Your task to perform on an android device: turn on priority inbox in the gmail app Image 0: 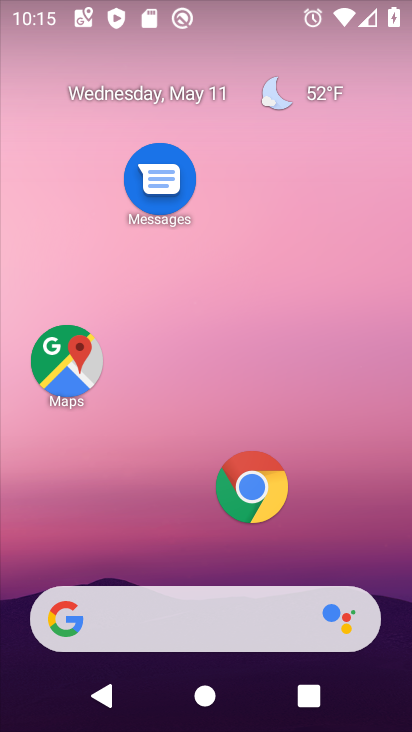
Step 0: drag from (173, 555) to (179, 232)
Your task to perform on an android device: turn on priority inbox in the gmail app Image 1: 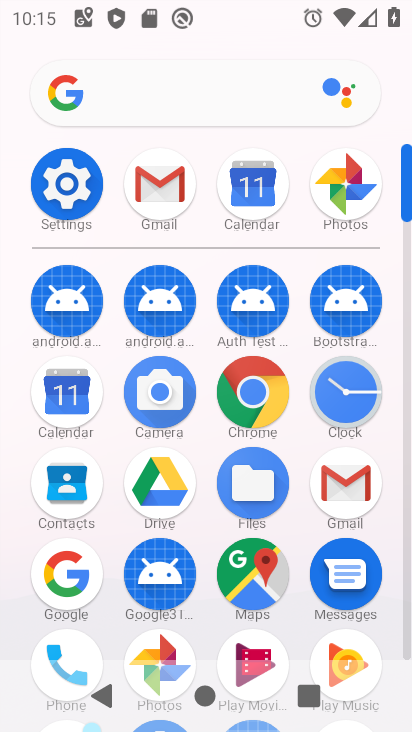
Step 1: click (155, 189)
Your task to perform on an android device: turn on priority inbox in the gmail app Image 2: 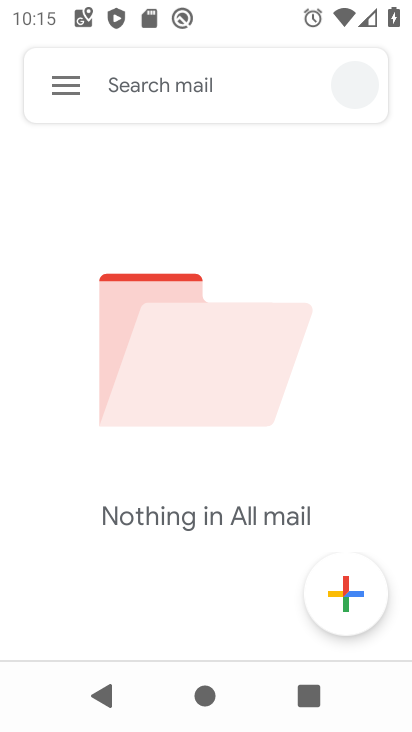
Step 2: click (77, 102)
Your task to perform on an android device: turn on priority inbox in the gmail app Image 3: 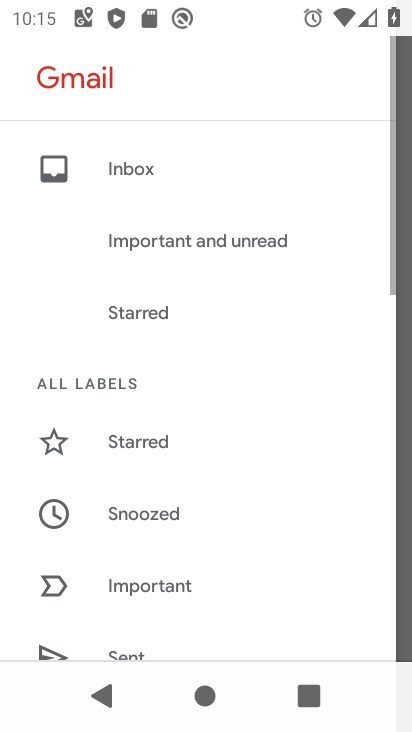
Step 3: drag from (176, 600) to (194, 244)
Your task to perform on an android device: turn on priority inbox in the gmail app Image 4: 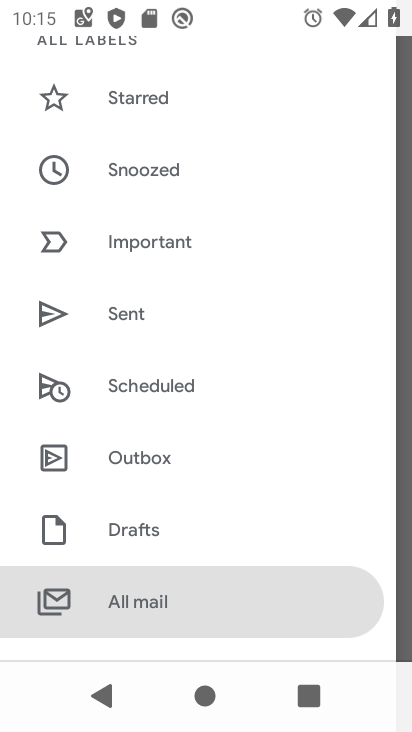
Step 4: drag from (152, 603) to (171, 292)
Your task to perform on an android device: turn on priority inbox in the gmail app Image 5: 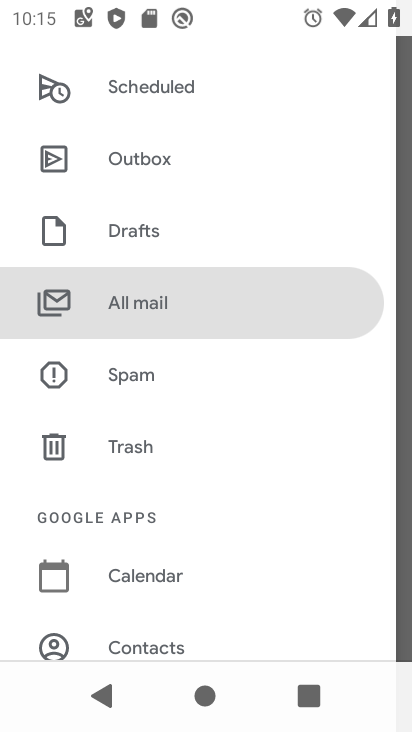
Step 5: drag from (163, 614) to (141, 340)
Your task to perform on an android device: turn on priority inbox in the gmail app Image 6: 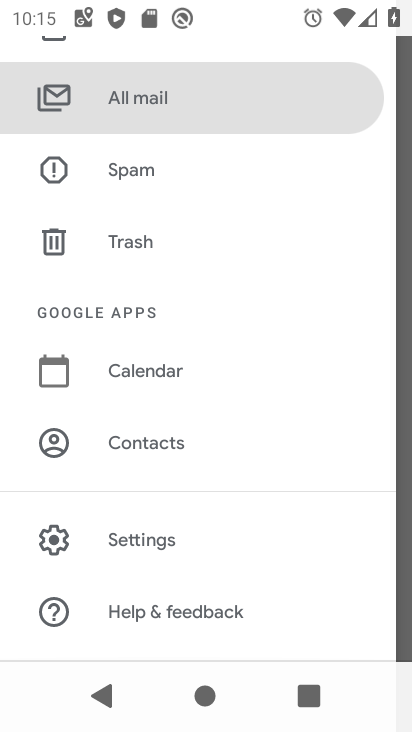
Step 6: click (140, 534)
Your task to perform on an android device: turn on priority inbox in the gmail app Image 7: 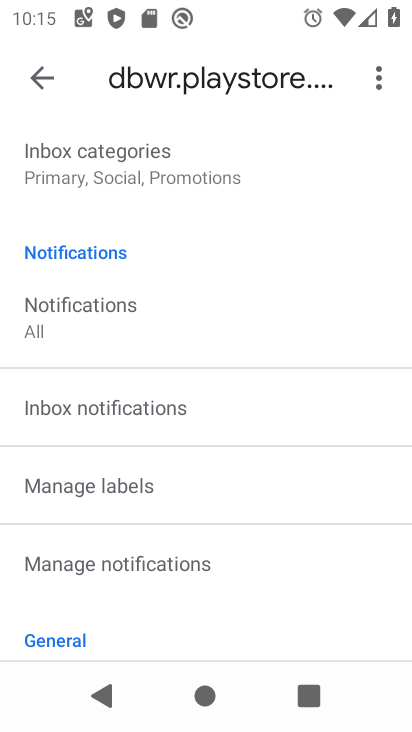
Step 7: drag from (193, 517) to (198, 290)
Your task to perform on an android device: turn on priority inbox in the gmail app Image 8: 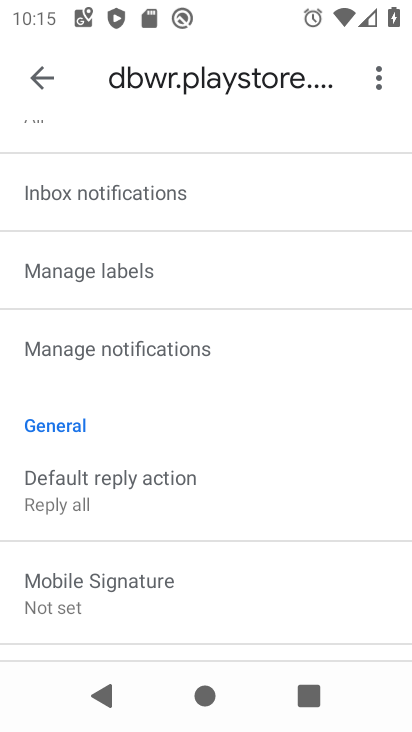
Step 8: drag from (185, 606) to (195, 320)
Your task to perform on an android device: turn on priority inbox in the gmail app Image 9: 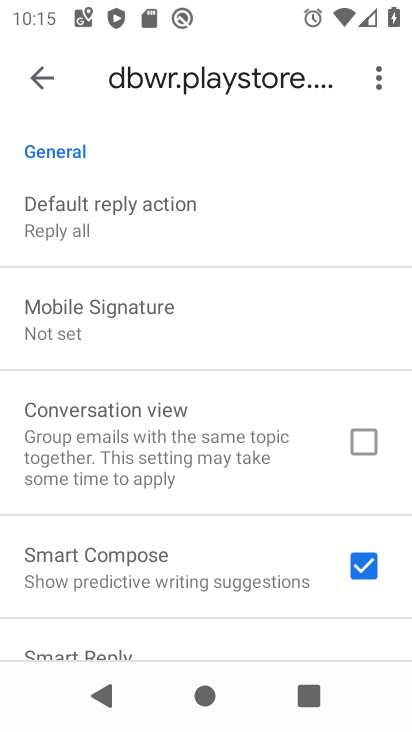
Step 9: drag from (200, 360) to (215, 554)
Your task to perform on an android device: turn on priority inbox in the gmail app Image 10: 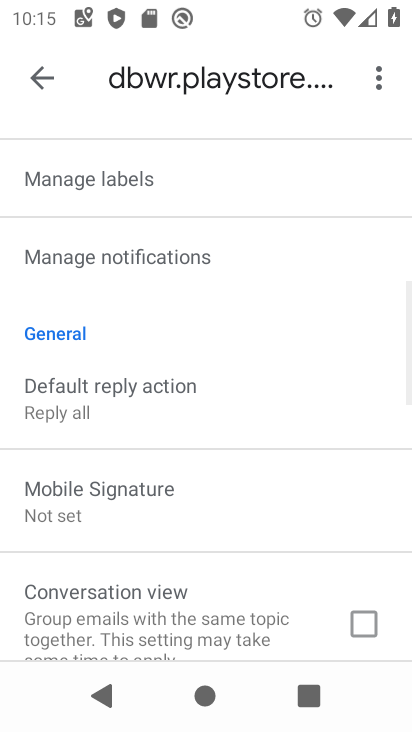
Step 10: drag from (199, 250) to (204, 468)
Your task to perform on an android device: turn on priority inbox in the gmail app Image 11: 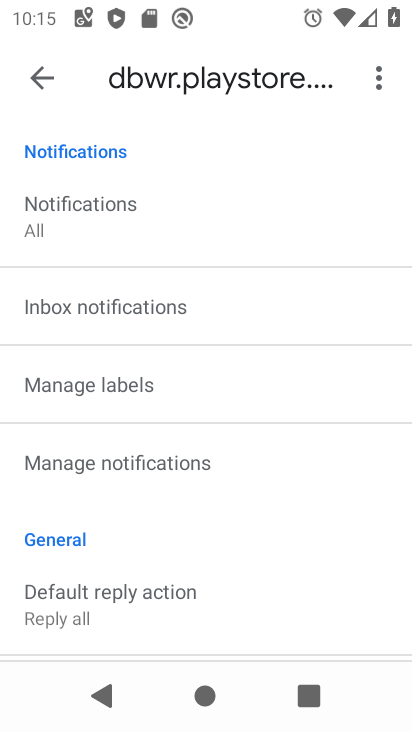
Step 11: drag from (200, 252) to (216, 503)
Your task to perform on an android device: turn on priority inbox in the gmail app Image 12: 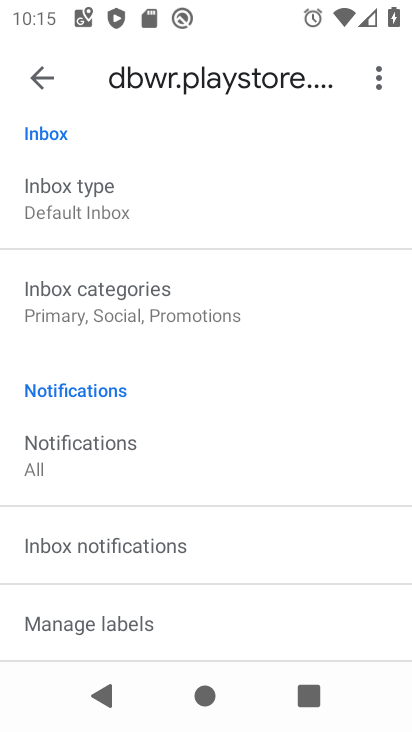
Step 12: click (172, 210)
Your task to perform on an android device: turn on priority inbox in the gmail app Image 13: 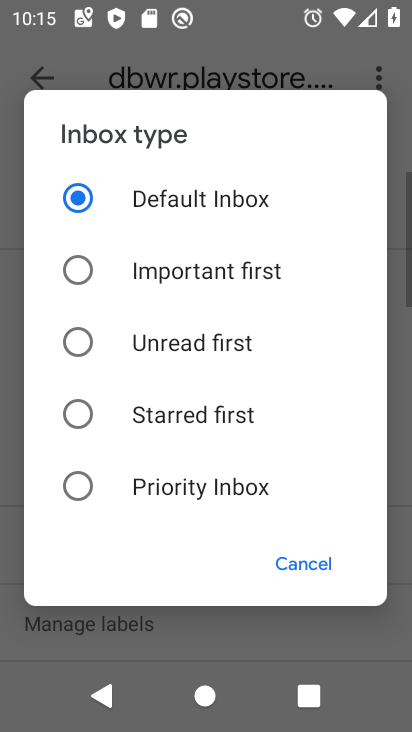
Step 13: click (143, 487)
Your task to perform on an android device: turn on priority inbox in the gmail app Image 14: 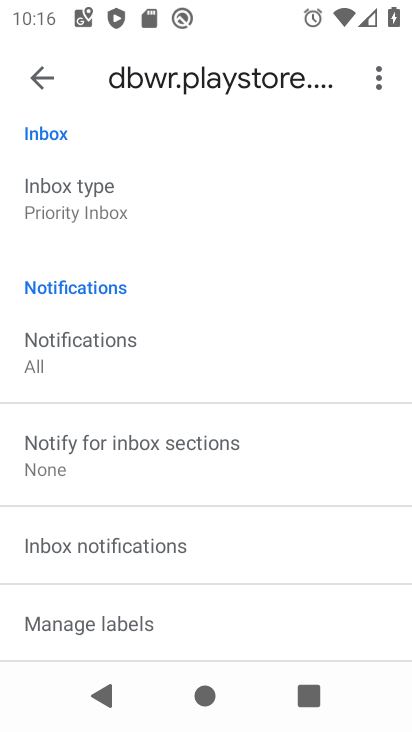
Step 14: task complete